Your task to perform on an android device: install app "Microsoft Excel" Image 0: 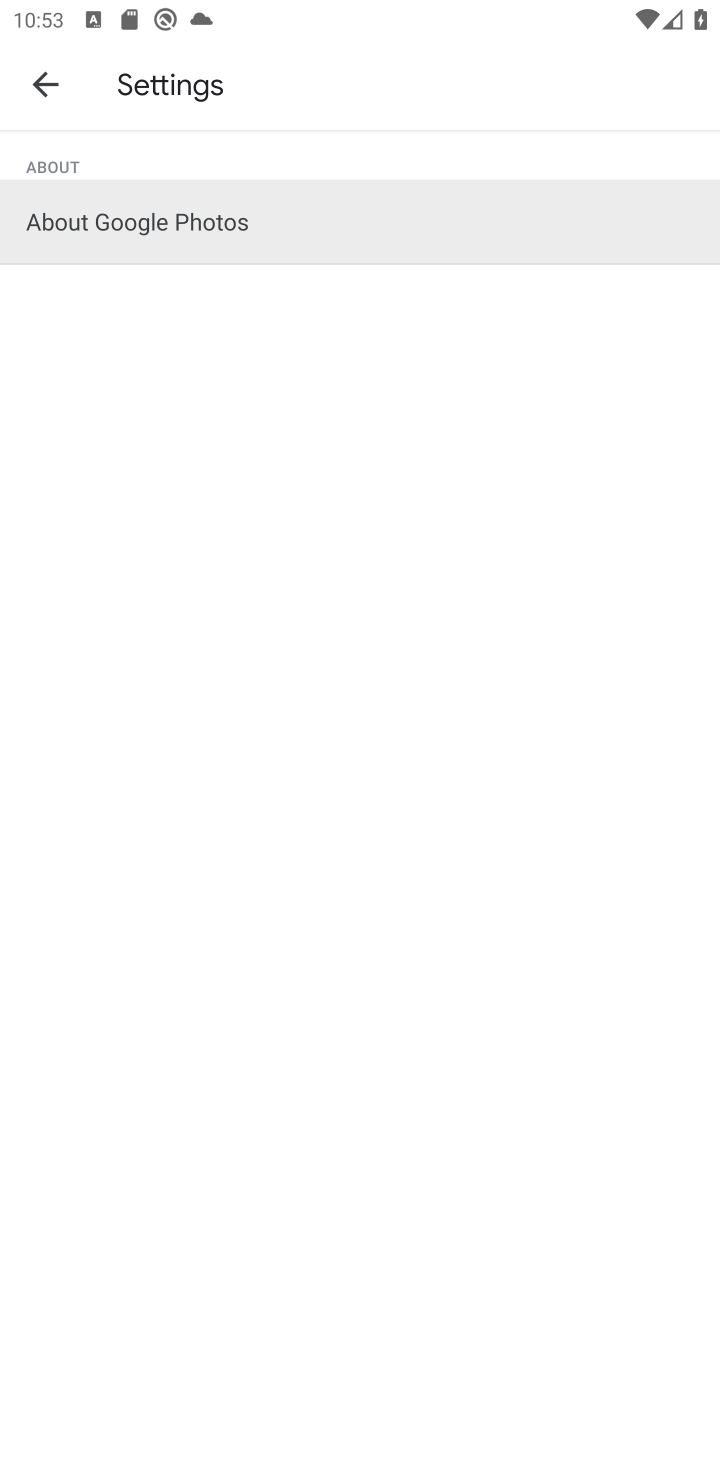
Step 0: press home button
Your task to perform on an android device: install app "Microsoft Excel" Image 1: 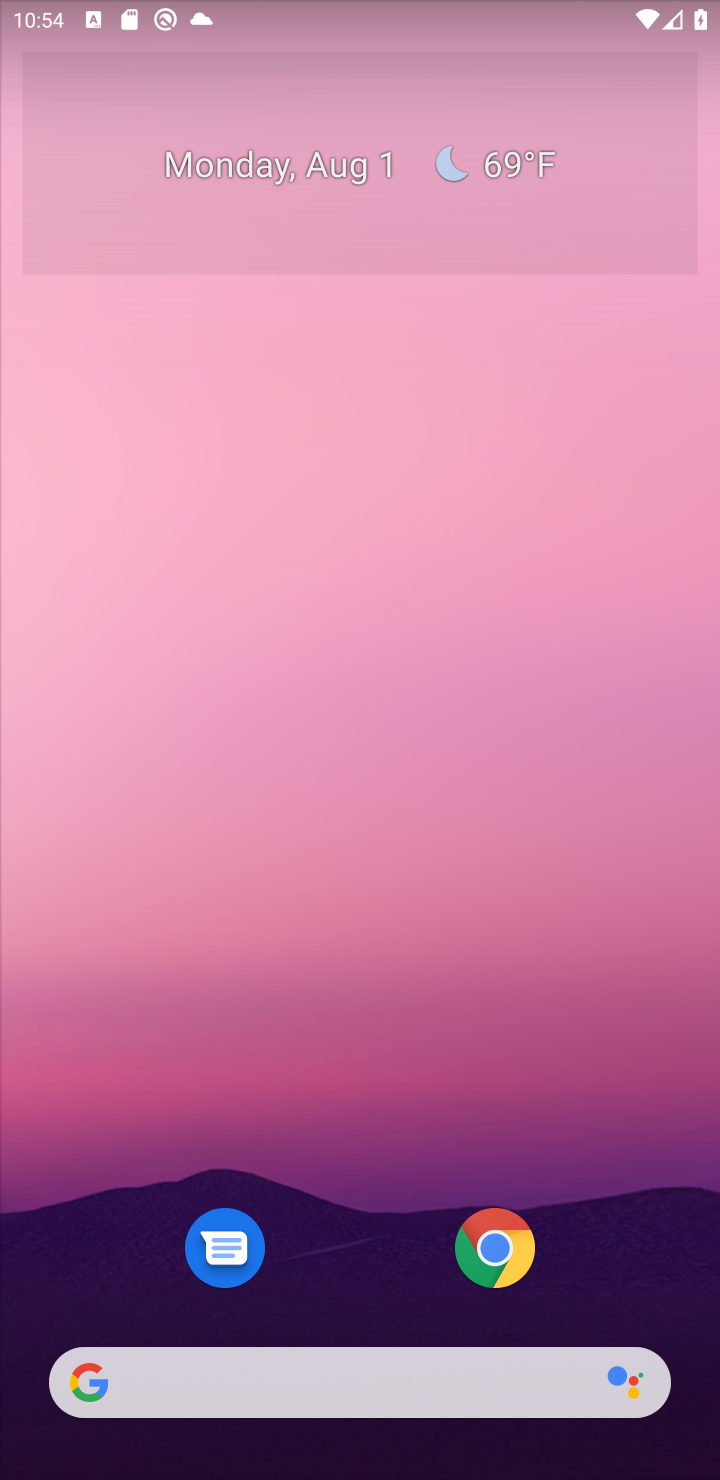
Step 1: drag from (334, 1256) to (406, 324)
Your task to perform on an android device: install app "Microsoft Excel" Image 2: 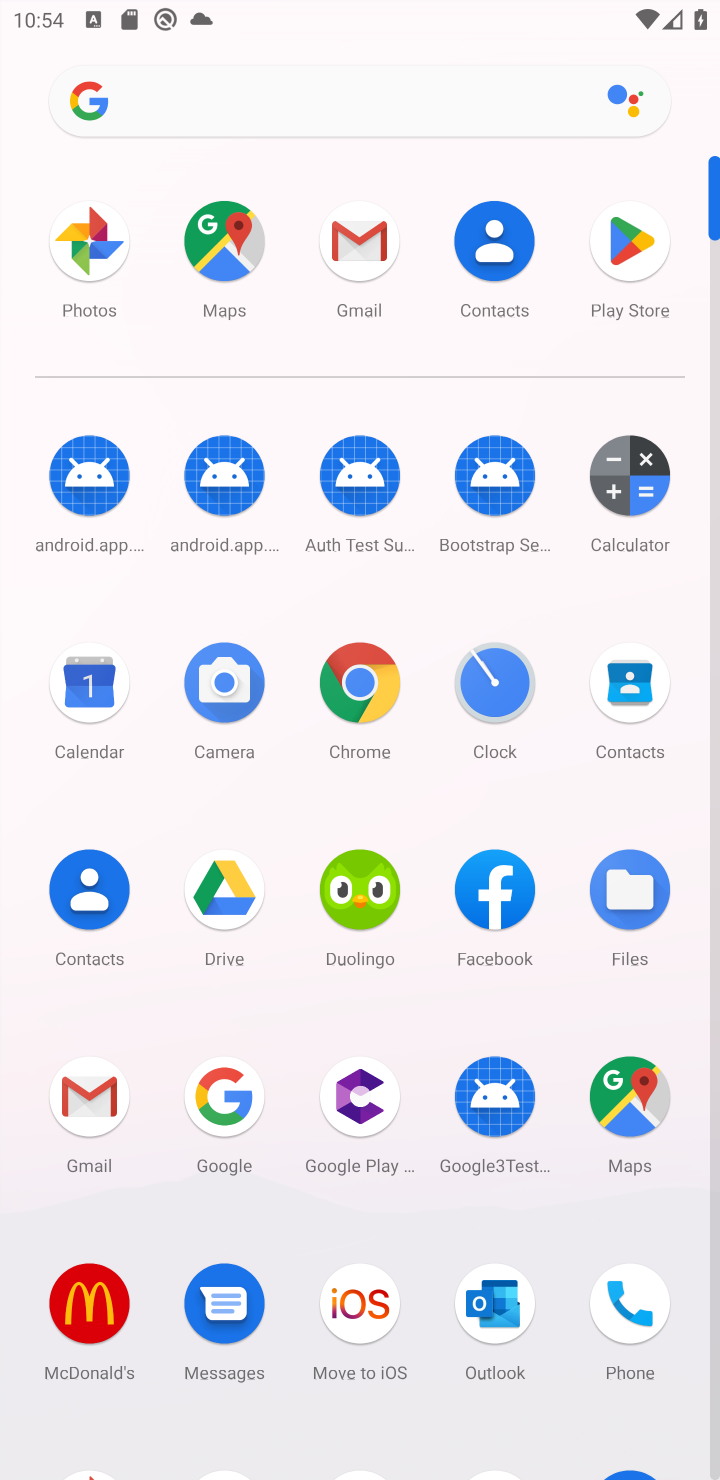
Step 2: drag from (304, 977) to (354, 434)
Your task to perform on an android device: install app "Microsoft Excel" Image 3: 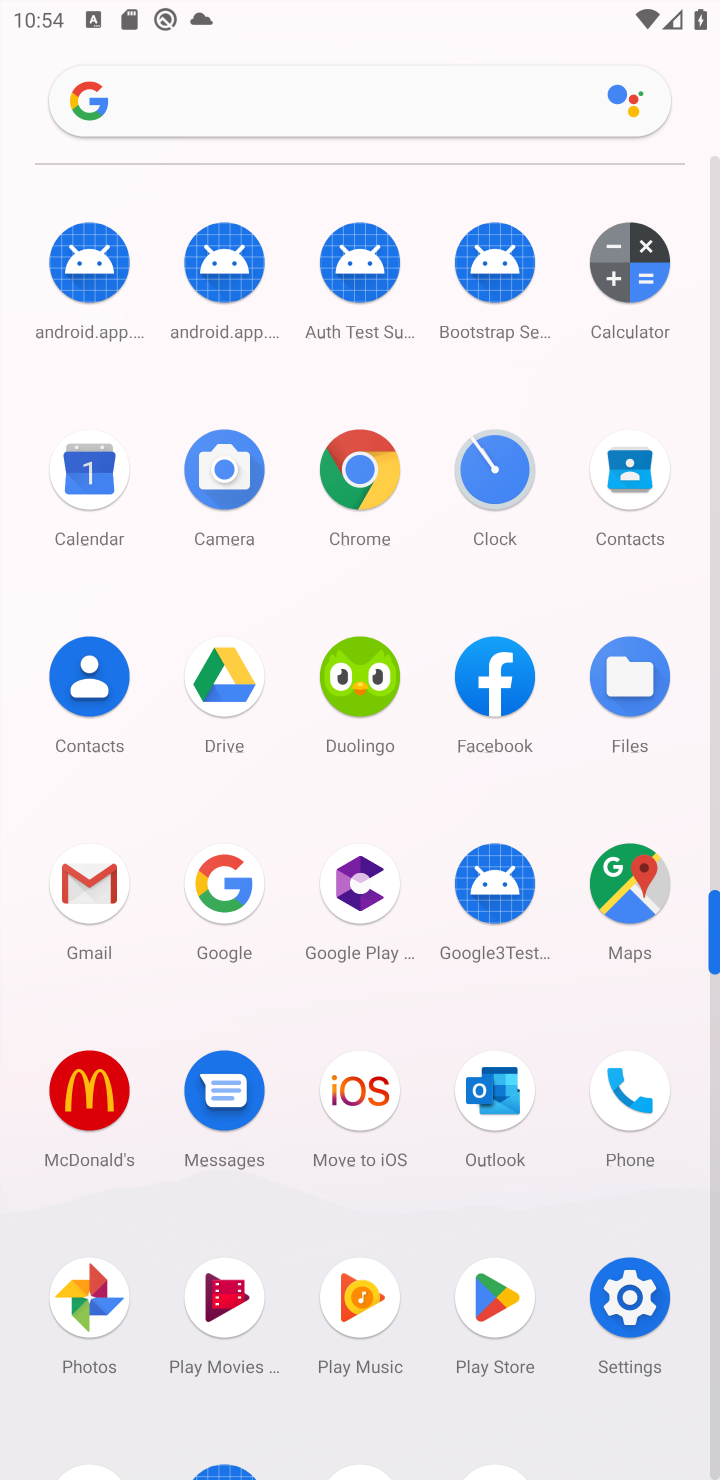
Step 3: click (487, 1304)
Your task to perform on an android device: install app "Microsoft Excel" Image 4: 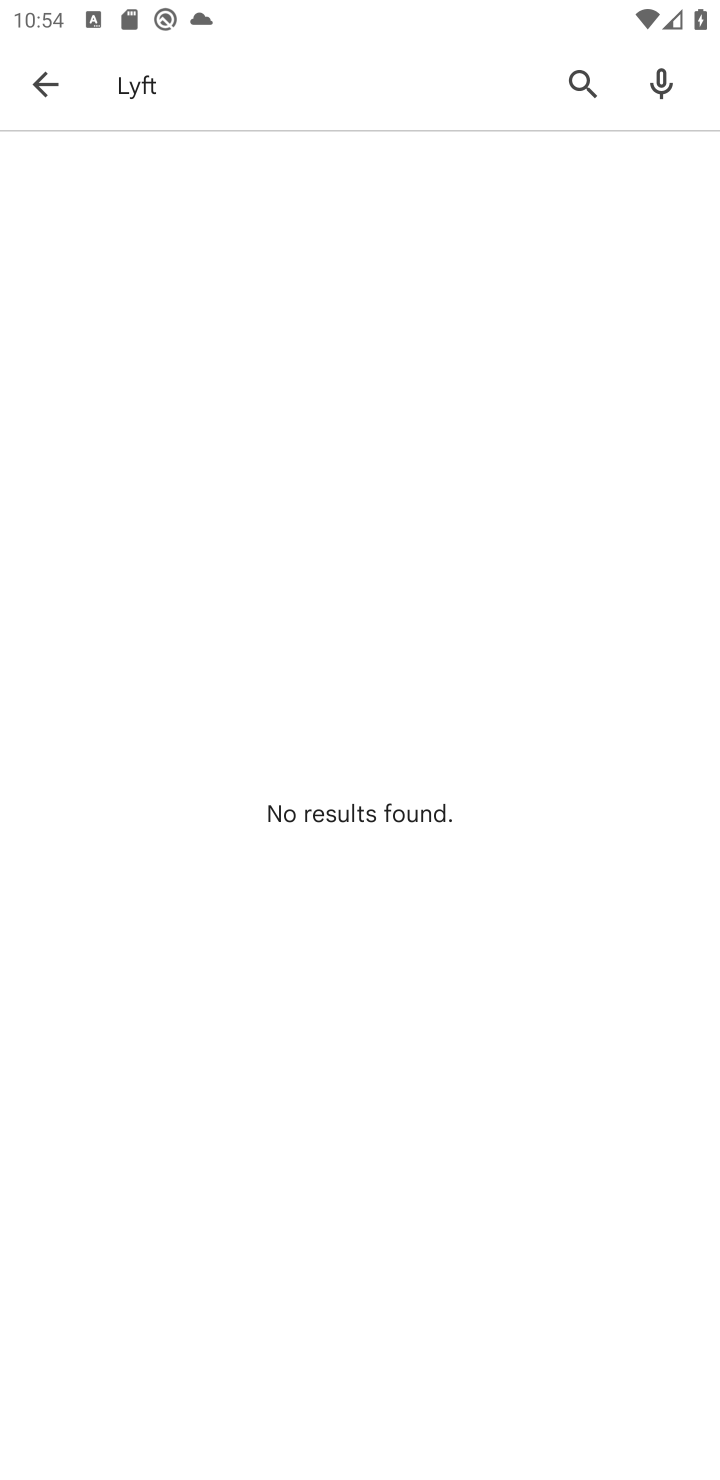
Step 4: click (343, 77)
Your task to perform on an android device: install app "Microsoft Excel" Image 5: 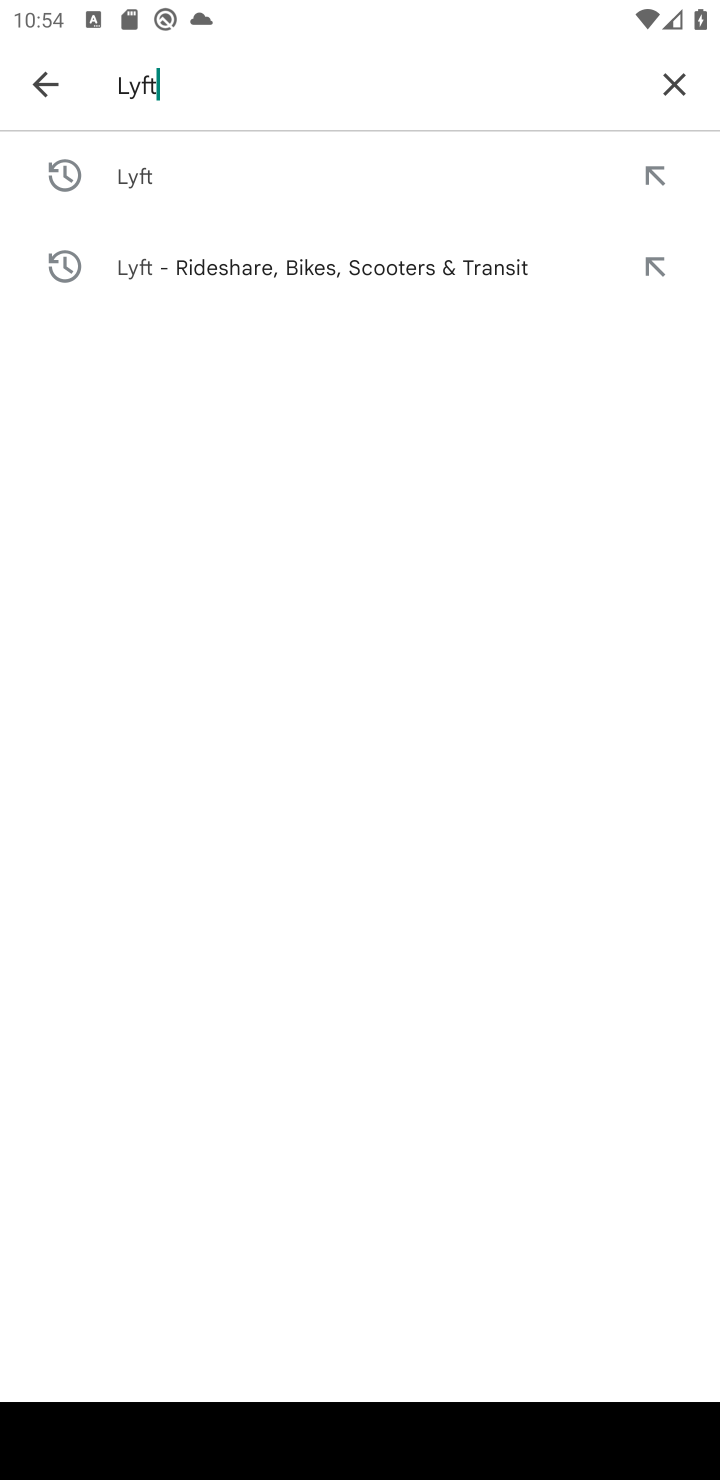
Step 5: click (674, 79)
Your task to perform on an android device: install app "Microsoft Excel" Image 6: 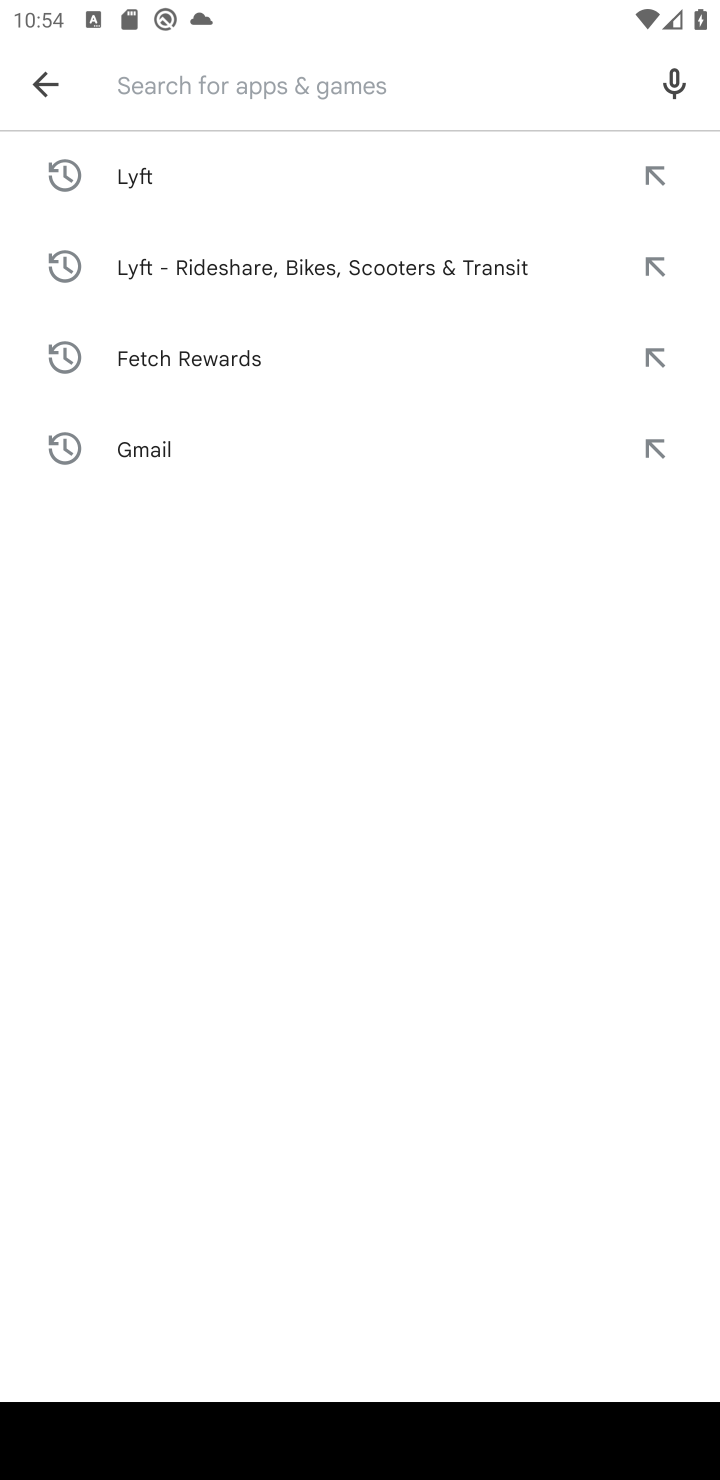
Step 6: type "Microsoft Excel"
Your task to perform on an android device: install app "Microsoft Excel" Image 7: 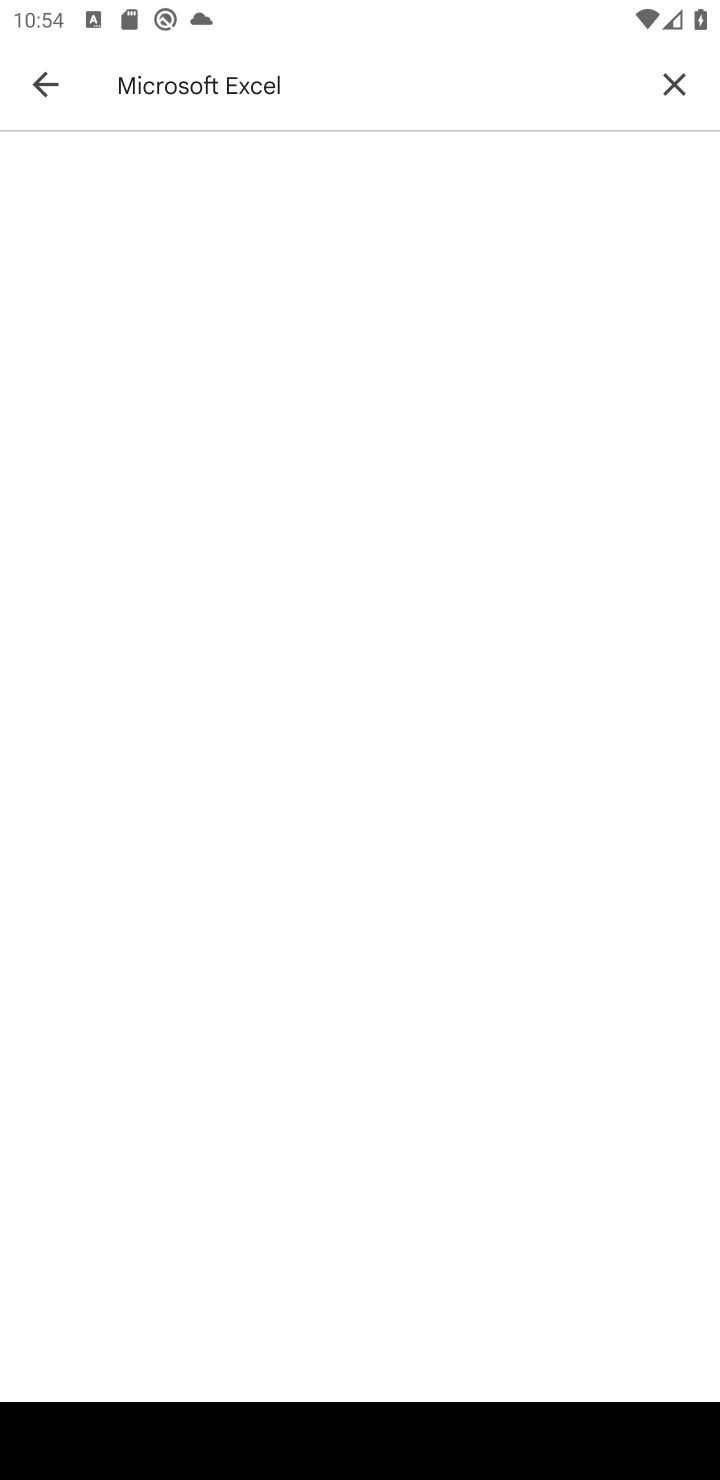
Step 7: press enter
Your task to perform on an android device: install app "Microsoft Excel" Image 8: 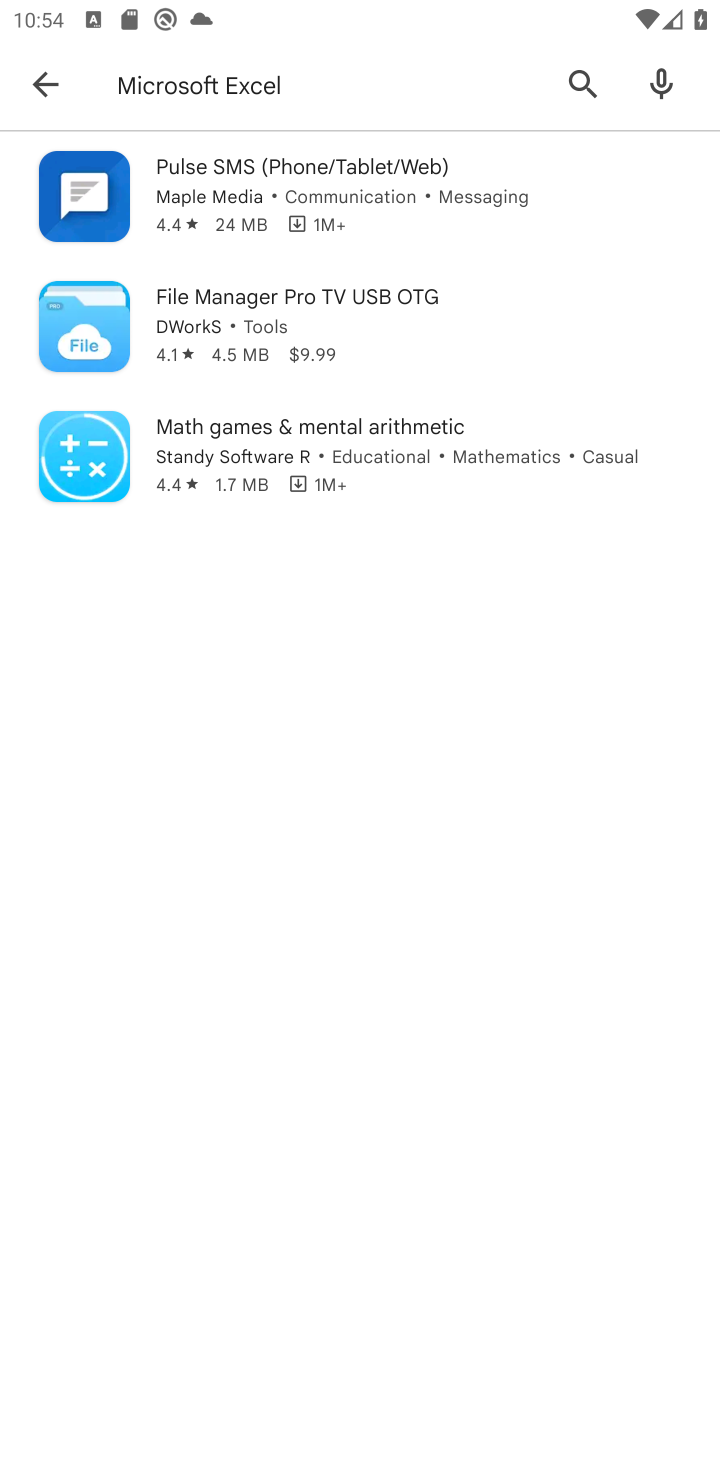
Step 8: task complete